Your task to perform on an android device: Open Chrome and go to settings Image 0: 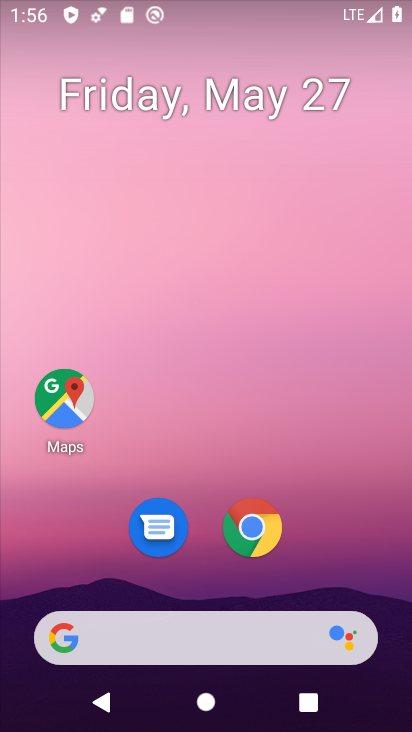
Step 0: click (245, 520)
Your task to perform on an android device: Open Chrome and go to settings Image 1: 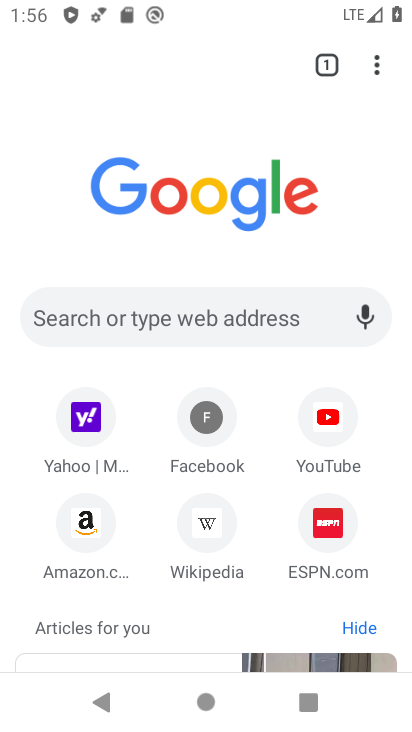
Step 1: click (379, 63)
Your task to perform on an android device: Open Chrome and go to settings Image 2: 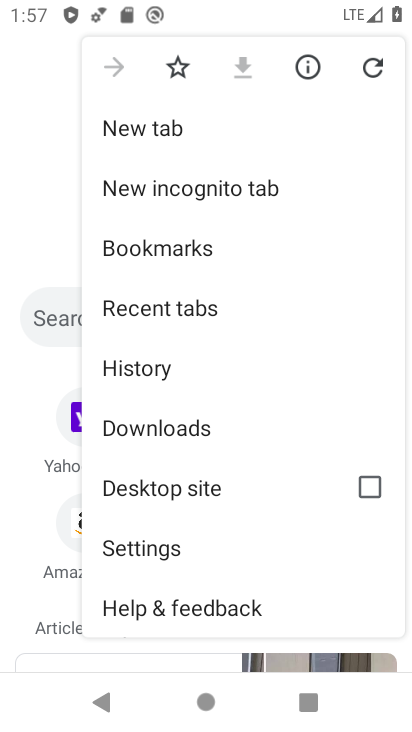
Step 2: click (192, 551)
Your task to perform on an android device: Open Chrome and go to settings Image 3: 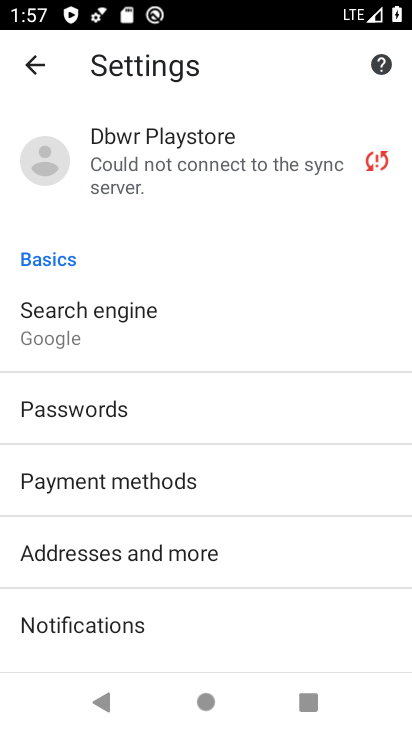
Step 3: task complete